Your task to perform on an android device: check storage Image 0: 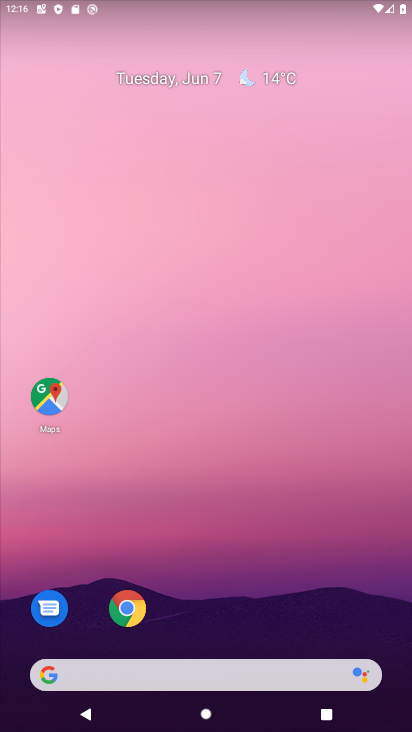
Step 0: drag from (217, 651) to (289, 335)
Your task to perform on an android device: check storage Image 1: 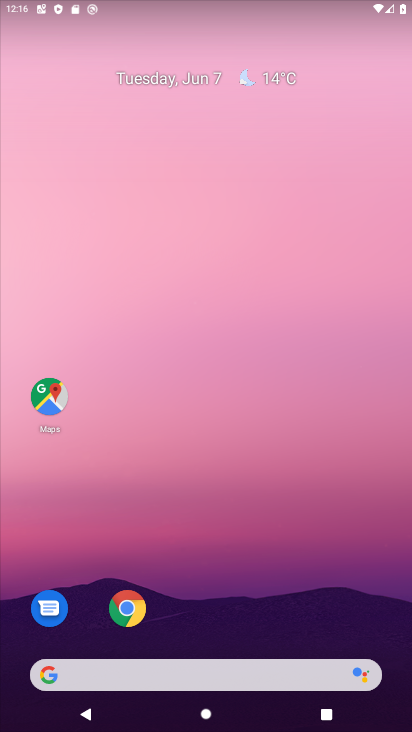
Step 1: drag from (172, 649) to (281, 173)
Your task to perform on an android device: check storage Image 2: 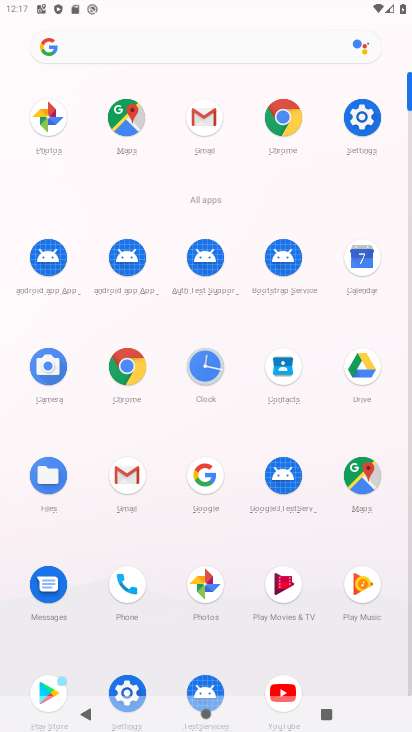
Step 2: click (138, 685)
Your task to perform on an android device: check storage Image 3: 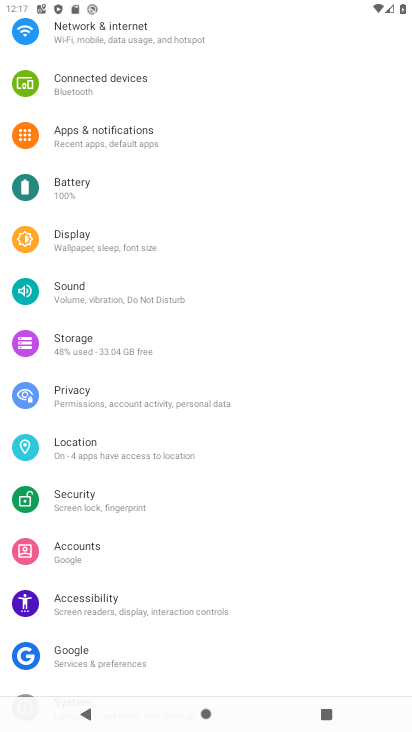
Step 3: click (138, 347)
Your task to perform on an android device: check storage Image 4: 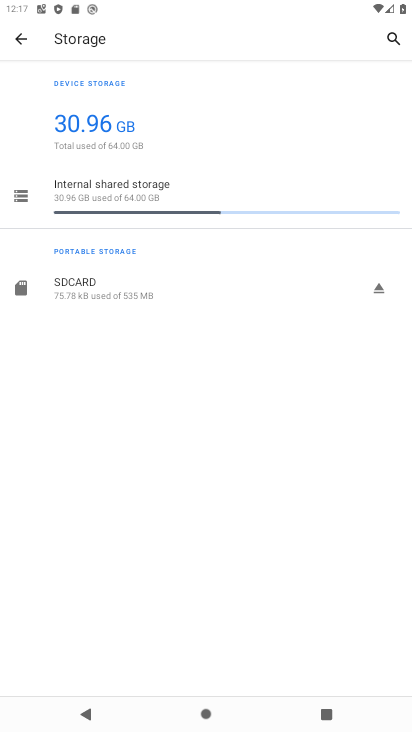
Step 4: task complete